Your task to perform on an android device: Show me the alarms in the clock app Image 0: 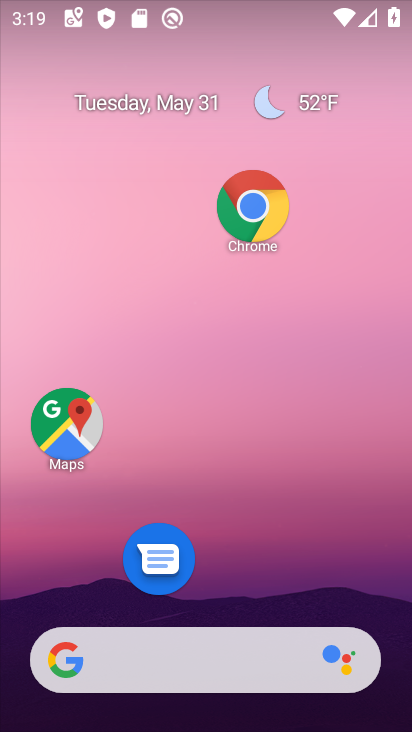
Step 0: drag from (218, 602) to (165, 210)
Your task to perform on an android device: Show me the alarms in the clock app Image 1: 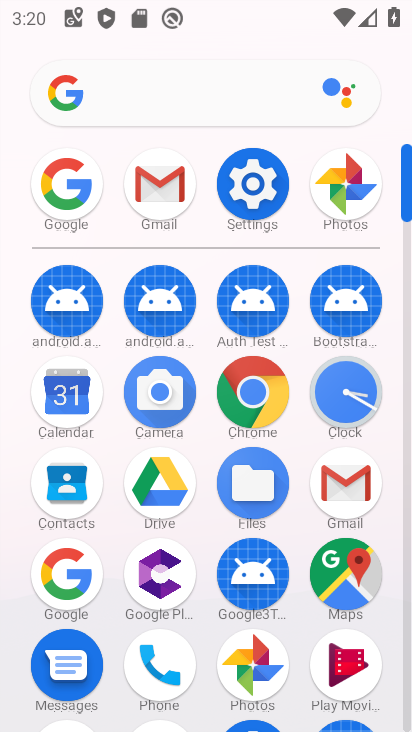
Step 1: click (349, 402)
Your task to perform on an android device: Show me the alarms in the clock app Image 2: 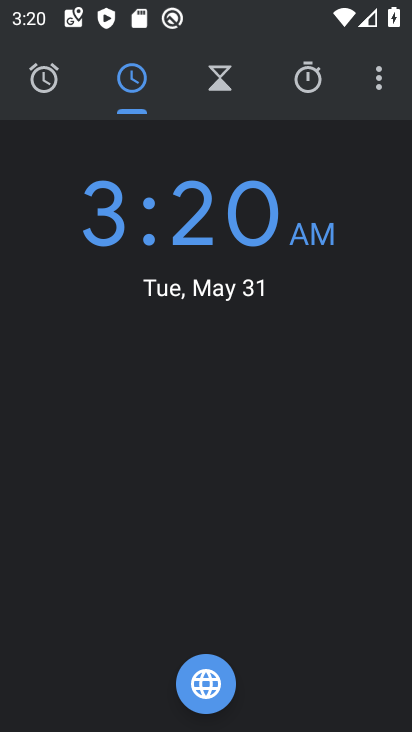
Step 2: click (55, 85)
Your task to perform on an android device: Show me the alarms in the clock app Image 3: 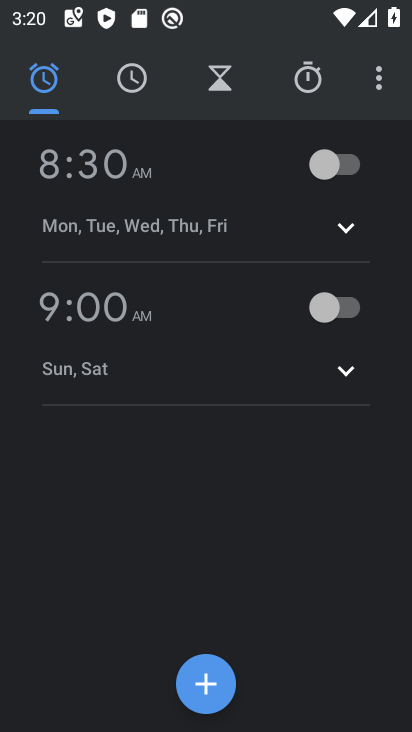
Step 3: task complete